Your task to perform on an android device: check out phone information Image 0: 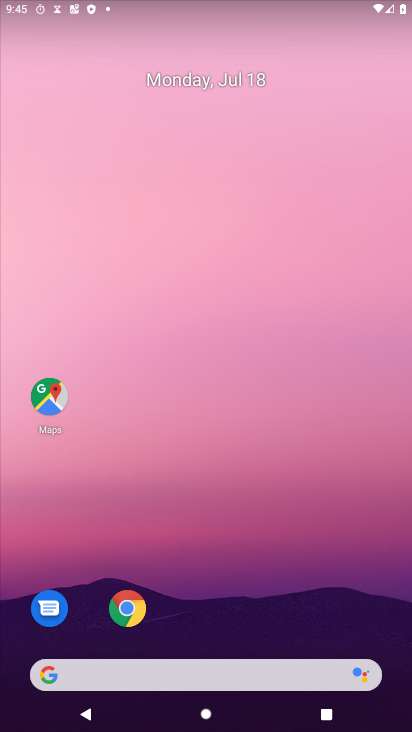
Step 0: drag from (186, 610) to (185, 251)
Your task to perform on an android device: check out phone information Image 1: 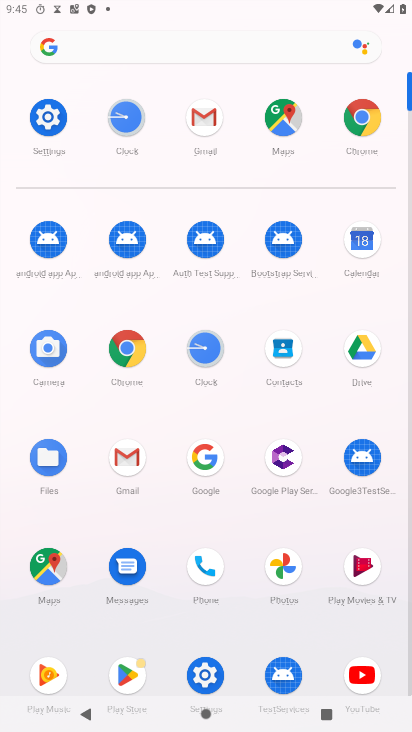
Step 1: click (204, 683)
Your task to perform on an android device: check out phone information Image 2: 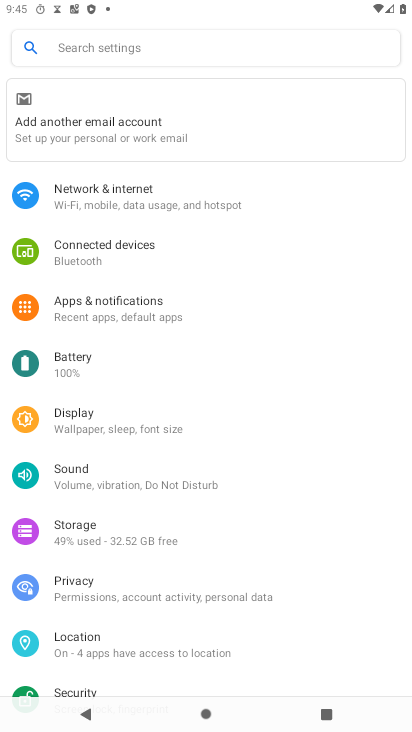
Step 2: drag from (174, 521) to (156, 80)
Your task to perform on an android device: check out phone information Image 3: 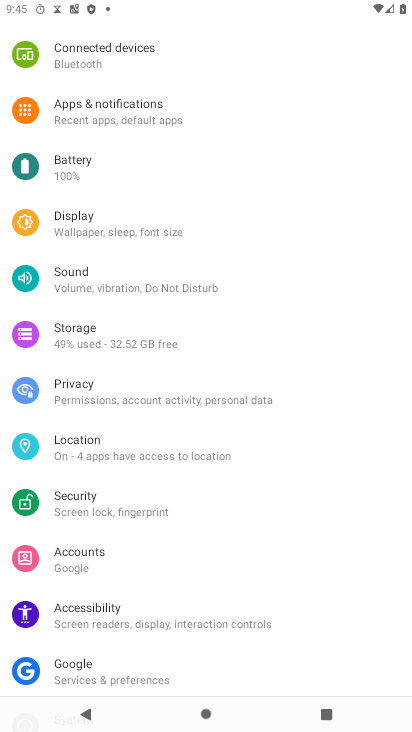
Step 3: drag from (112, 602) to (114, 271)
Your task to perform on an android device: check out phone information Image 4: 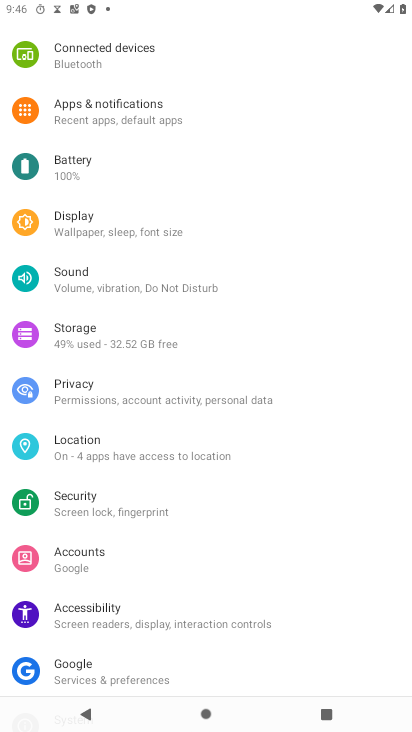
Step 4: drag from (154, 527) to (172, 117)
Your task to perform on an android device: check out phone information Image 5: 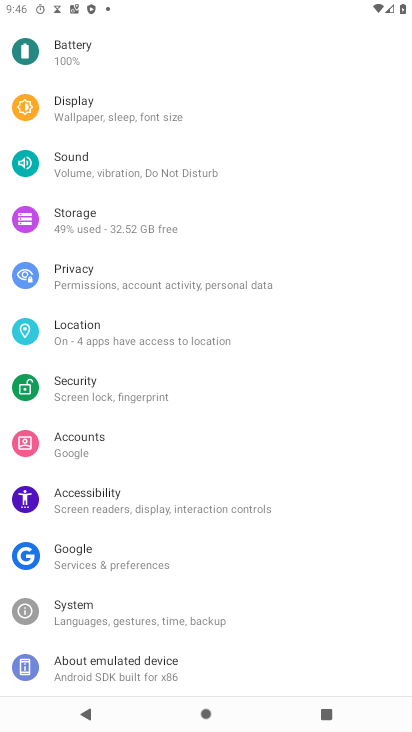
Step 5: click (91, 660)
Your task to perform on an android device: check out phone information Image 6: 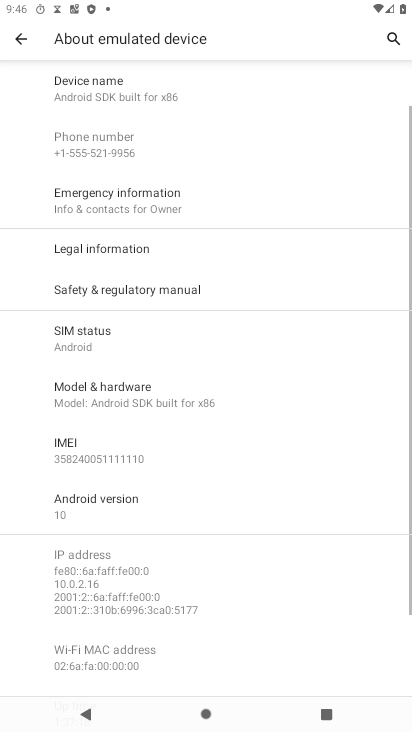
Step 6: task complete